Your task to perform on an android device: check the backup settings in the google photos Image 0: 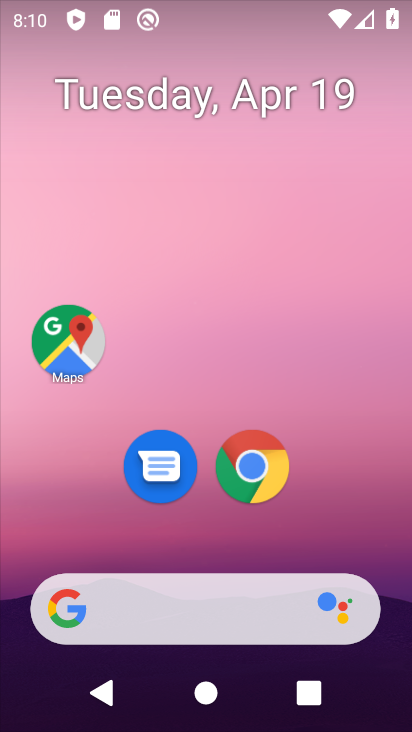
Step 0: drag from (365, 292) to (410, 68)
Your task to perform on an android device: check the backup settings in the google photos Image 1: 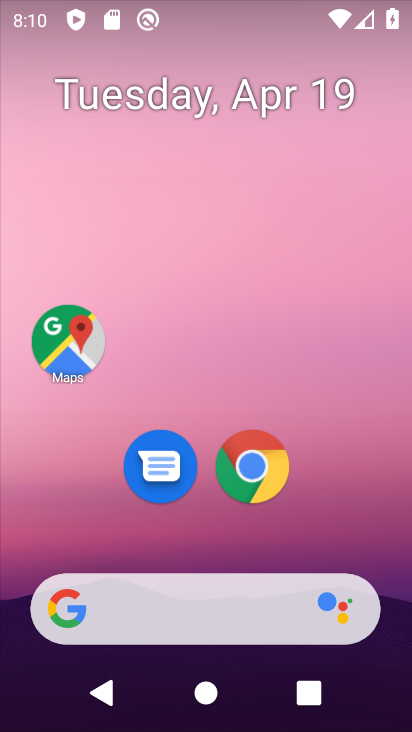
Step 1: drag from (318, 539) to (410, 56)
Your task to perform on an android device: check the backup settings in the google photos Image 2: 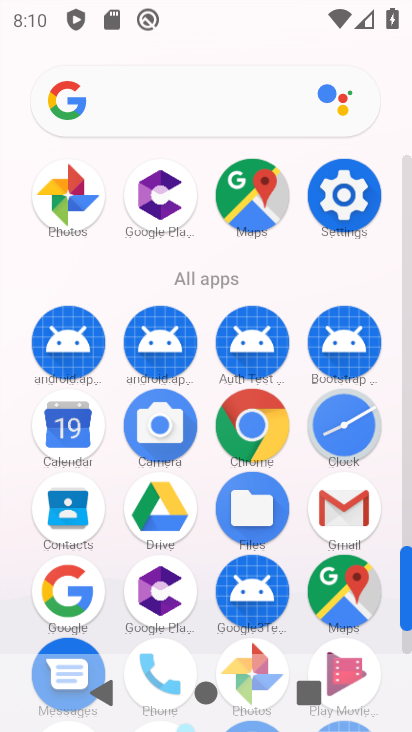
Step 2: click (61, 185)
Your task to perform on an android device: check the backup settings in the google photos Image 3: 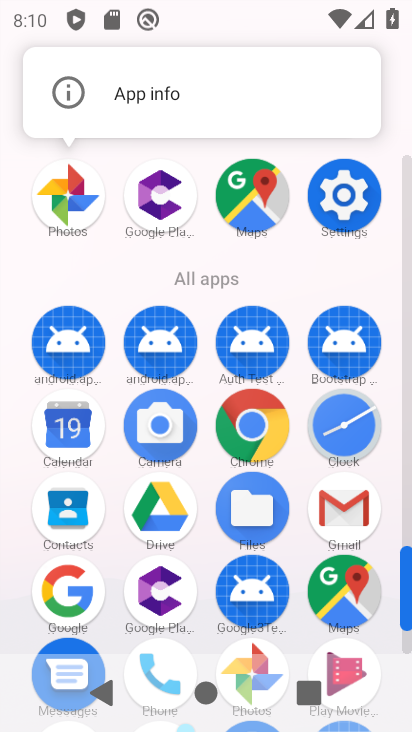
Step 3: click (61, 184)
Your task to perform on an android device: check the backup settings in the google photos Image 4: 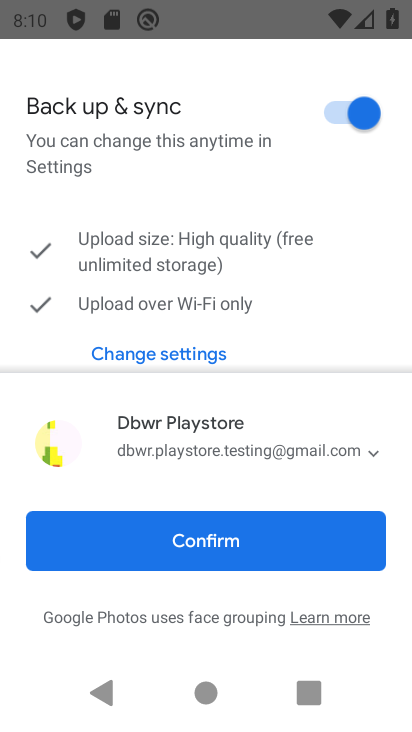
Step 4: click (190, 553)
Your task to perform on an android device: check the backup settings in the google photos Image 5: 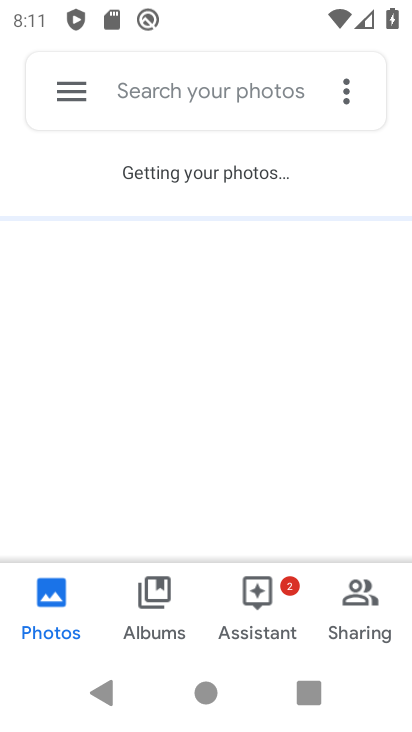
Step 5: click (64, 89)
Your task to perform on an android device: check the backup settings in the google photos Image 6: 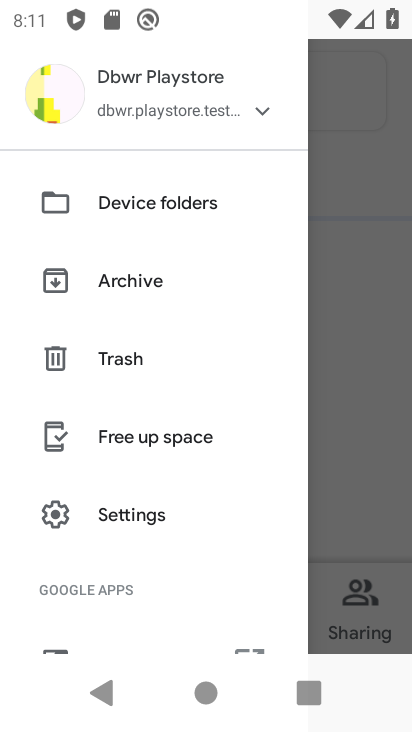
Step 6: click (160, 530)
Your task to perform on an android device: check the backup settings in the google photos Image 7: 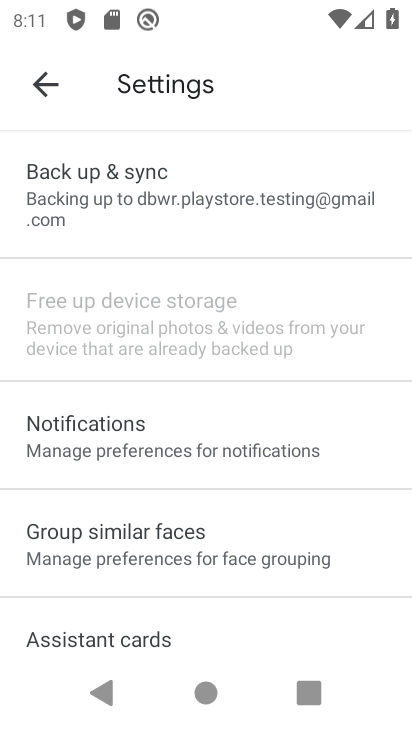
Step 7: click (147, 183)
Your task to perform on an android device: check the backup settings in the google photos Image 8: 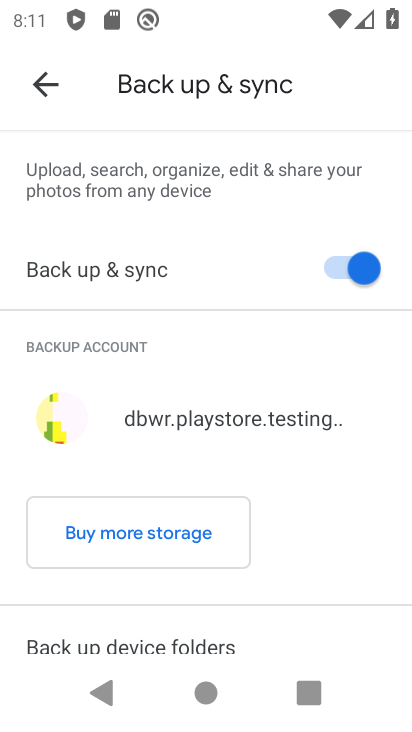
Step 8: task complete